Your task to perform on an android device: Open the phone app and click the voicemail tab. Image 0: 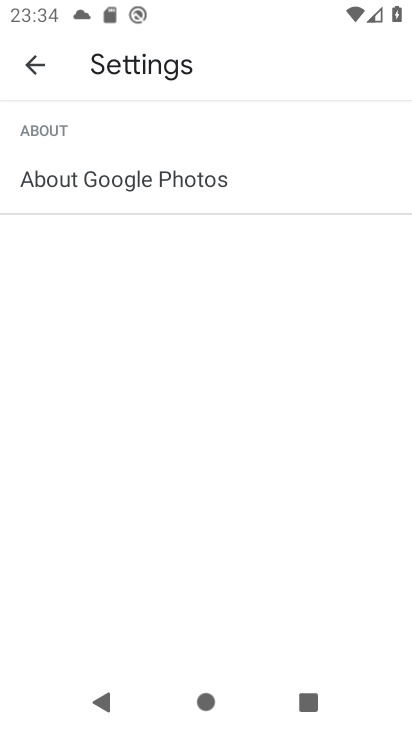
Step 0: press home button
Your task to perform on an android device: Open the phone app and click the voicemail tab. Image 1: 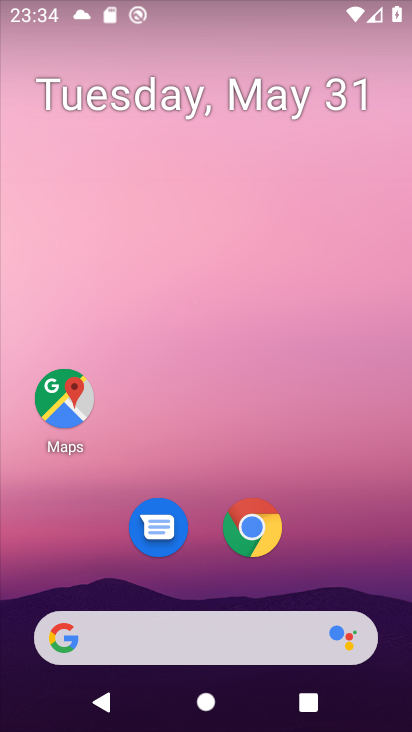
Step 1: drag from (314, 408) to (255, 42)
Your task to perform on an android device: Open the phone app and click the voicemail tab. Image 2: 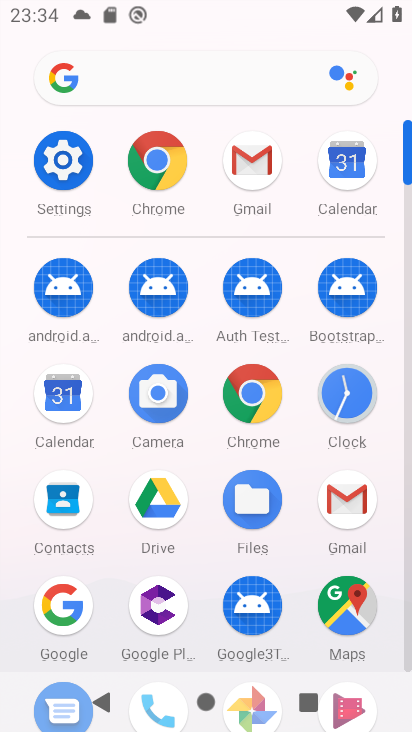
Step 2: drag from (203, 615) to (190, 175)
Your task to perform on an android device: Open the phone app and click the voicemail tab. Image 3: 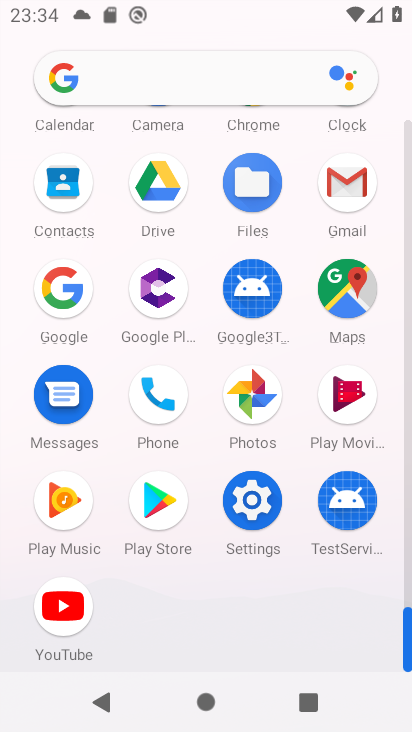
Step 3: click (168, 381)
Your task to perform on an android device: Open the phone app and click the voicemail tab. Image 4: 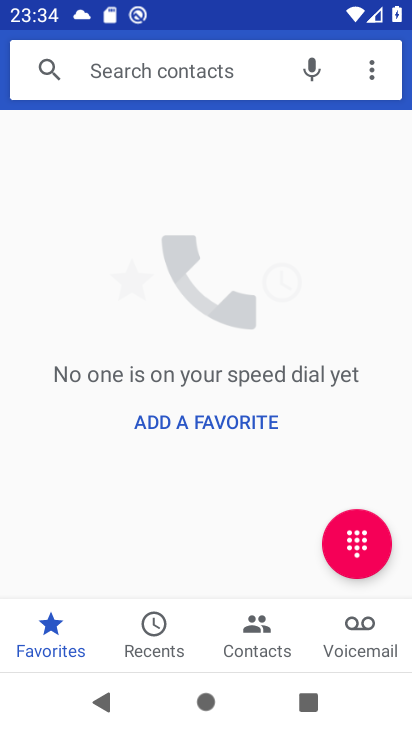
Step 4: click (373, 628)
Your task to perform on an android device: Open the phone app and click the voicemail tab. Image 5: 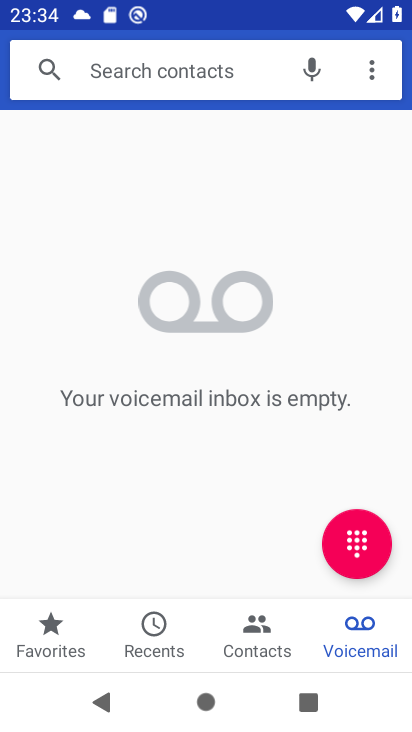
Step 5: task complete